Your task to perform on an android device: set the timer Image 0: 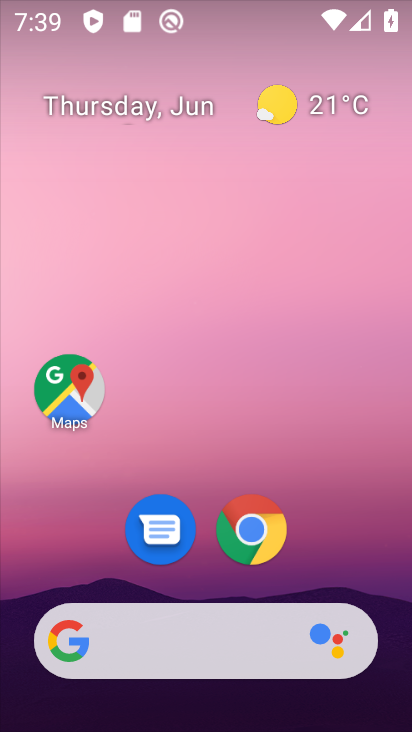
Step 0: drag from (391, 708) to (350, 99)
Your task to perform on an android device: set the timer Image 1: 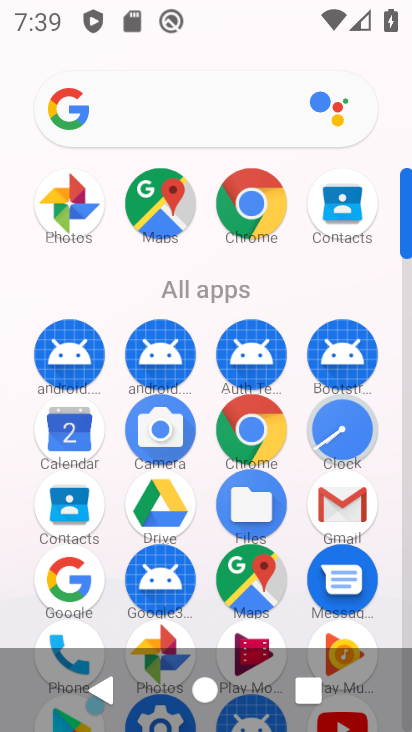
Step 1: click (335, 461)
Your task to perform on an android device: set the timer Image 2: 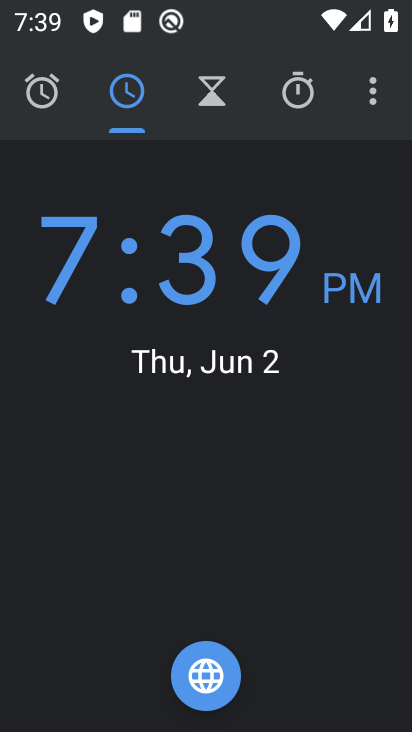
Step 2: click (298, 97)
Your task to perform on an android device: set the timer Image 3: 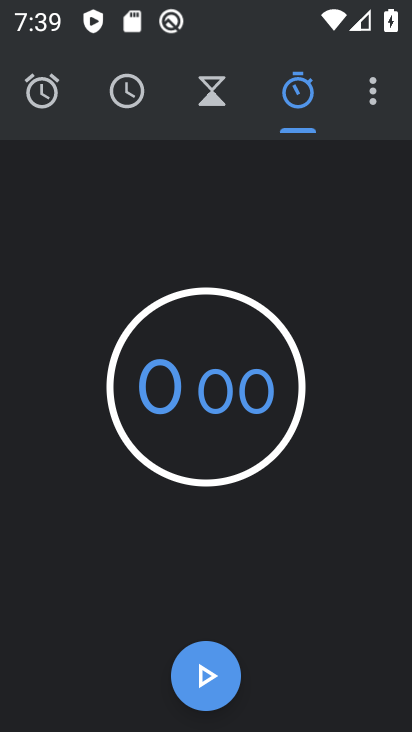
Step 3: click (209, 87)
Your task to perform on an android device: set the timer Image 4: 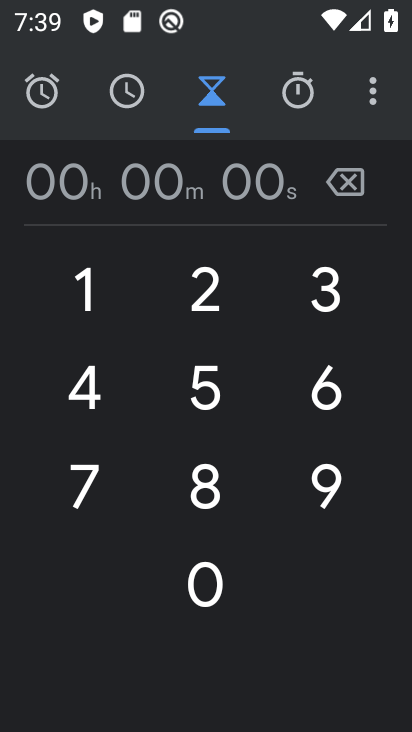
Step 4: click (292, 168)
Your task to perform on an android device: set the timer Image 5: 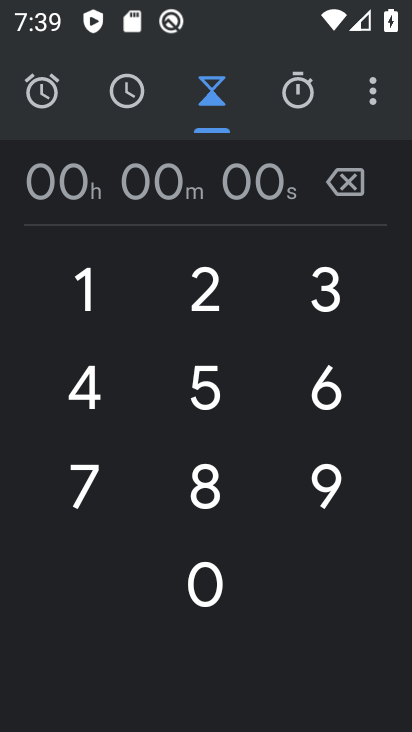
Step 5: click (278, 180)
Your task to perform on an android device: set the timer Image 6: 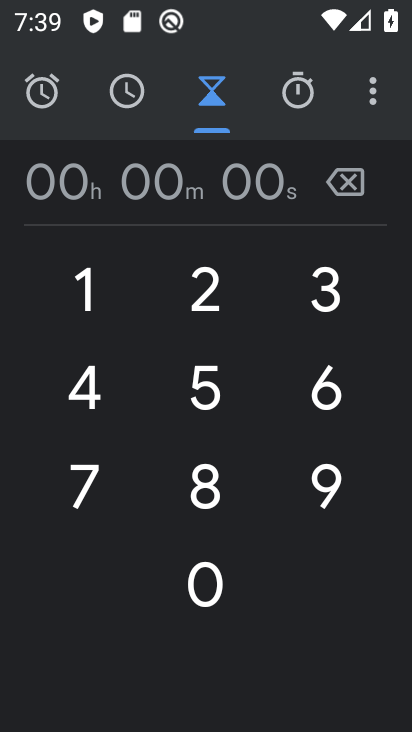
Step 6: click (99, 293)
Your task to perform on an android device: set the timer Image 7: 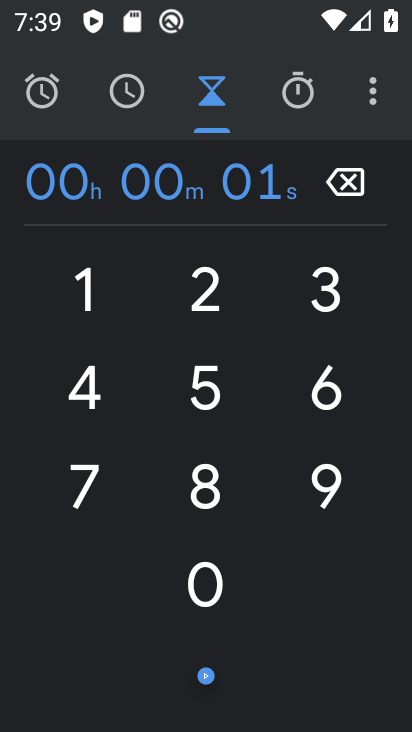
Step 7: click (207, 292)
Your task to perform on an android device: set the timer Image 8: 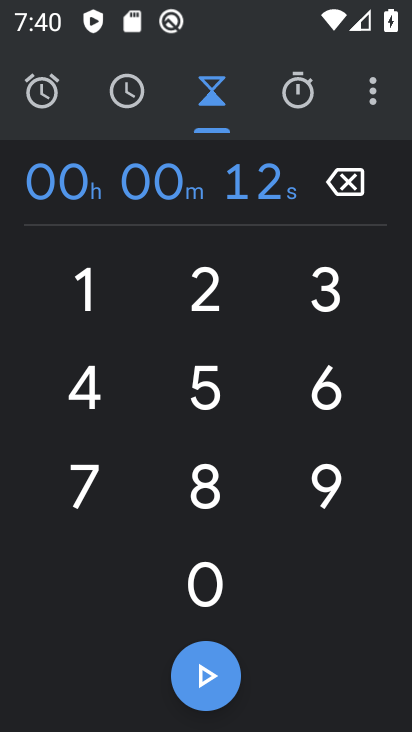
Step 8: click (326, 298)
Your task to perform on an android device: set the timer Image 9: 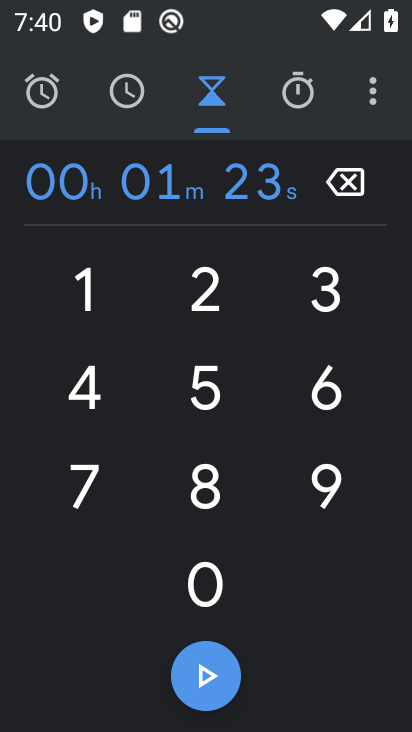
Step 9: click (220, 676)
Your task to perform on an android device: set the timer Image 10: 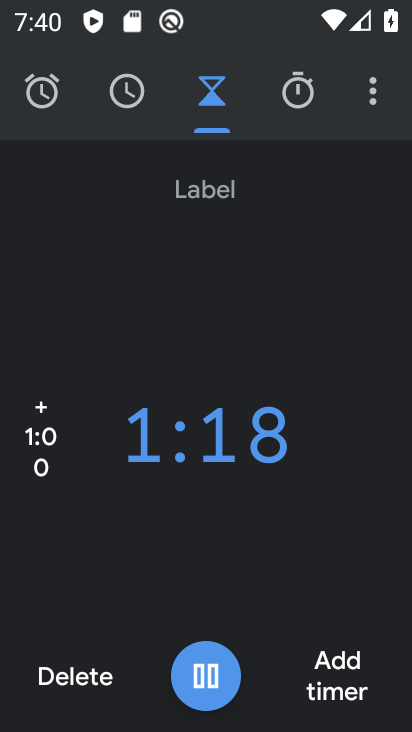
Step 10: task complete